Your task to perform on an android device: What's the weather going to be this weekend? Image 0: 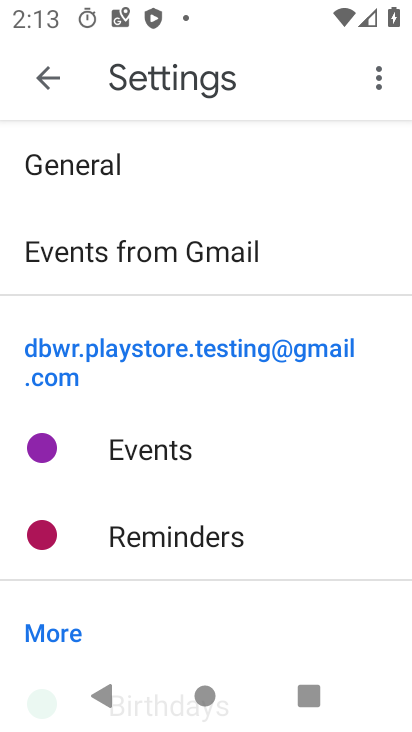
Step 0: press home button
Your task to perform on an android device: What's the weather going to be this weekend? Image 1: 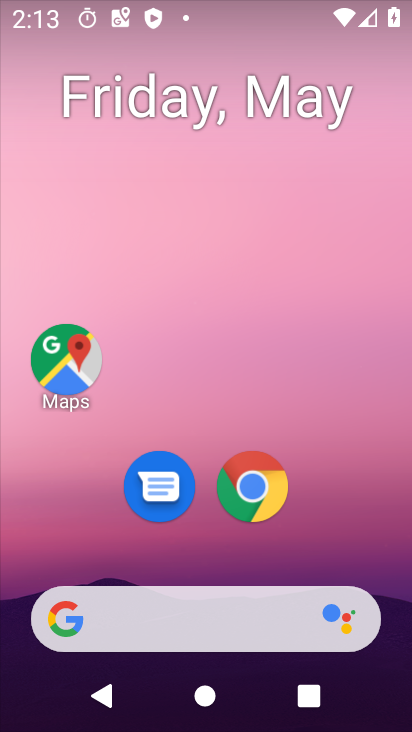
Step 1: drag from (391, 692) to (317, 190)
Your task to perform on an android device: What's the weather going to be this weekend? Image 2: 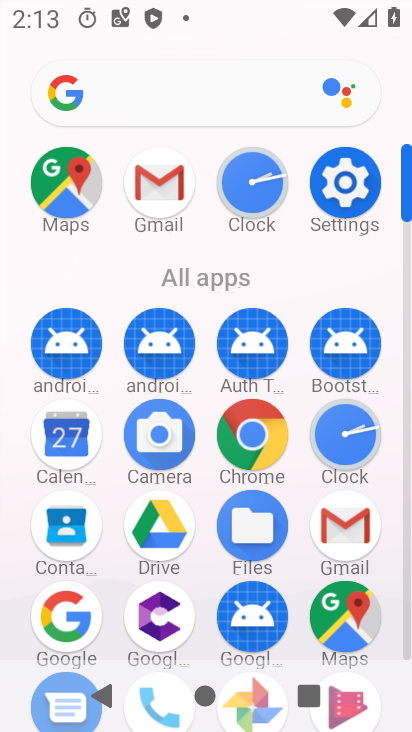
Step 2: click (65, 614)
Your task to perform on an android device: What's the weather going to be this weekend? Image 3: 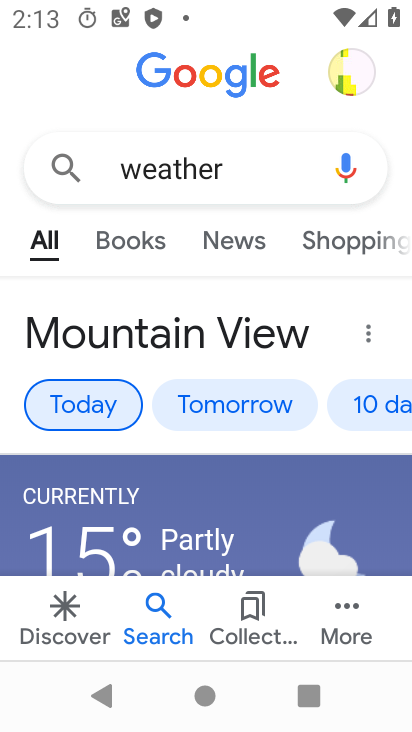
Step 3: click (356, 410)
Your task to perform on an android device: What's the weather going to be this weekend? Image 4: 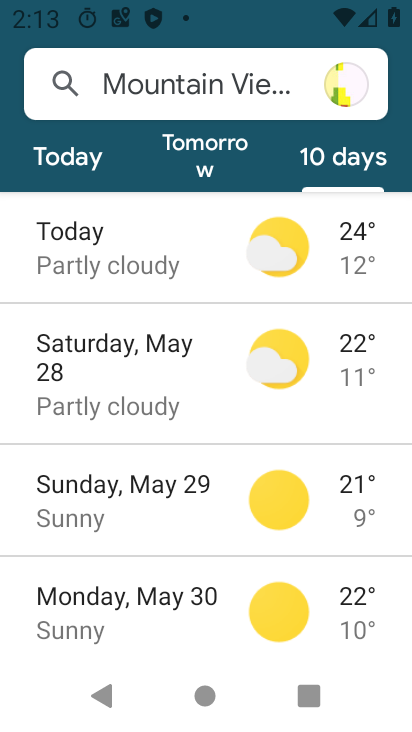
Step 4: task complete